Your task to perform on an android device: How much does a 2 bedroom apartment rent for in Denver? Image 0: 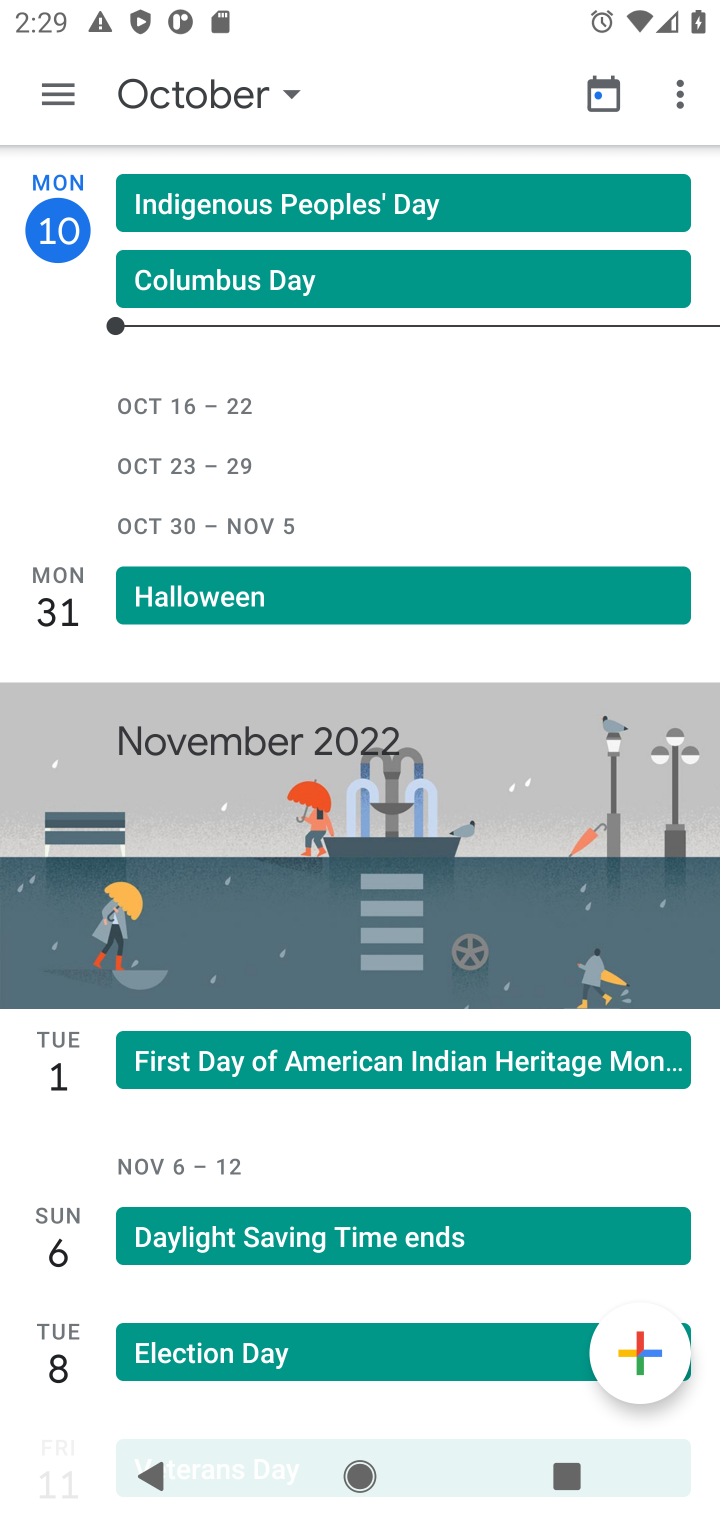
Step 0: press home button
Your task to perform on an android device: How much does a 2 bedroom apartment rent for in Denver? Image 1: 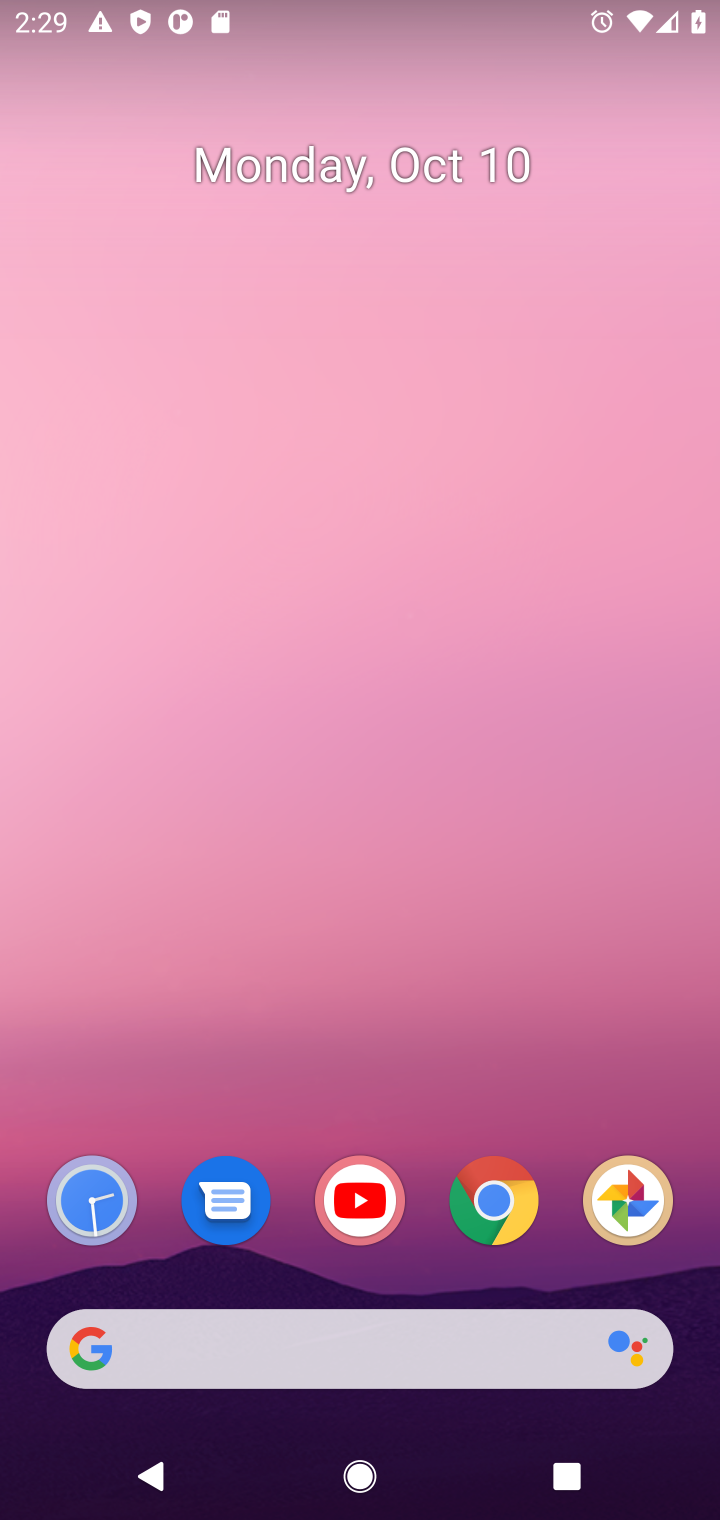
Step 1: click (485, 1202)
Your task to perform on an android device: How much does a 2 bedroom apartment rent for in Denver? Image 2: 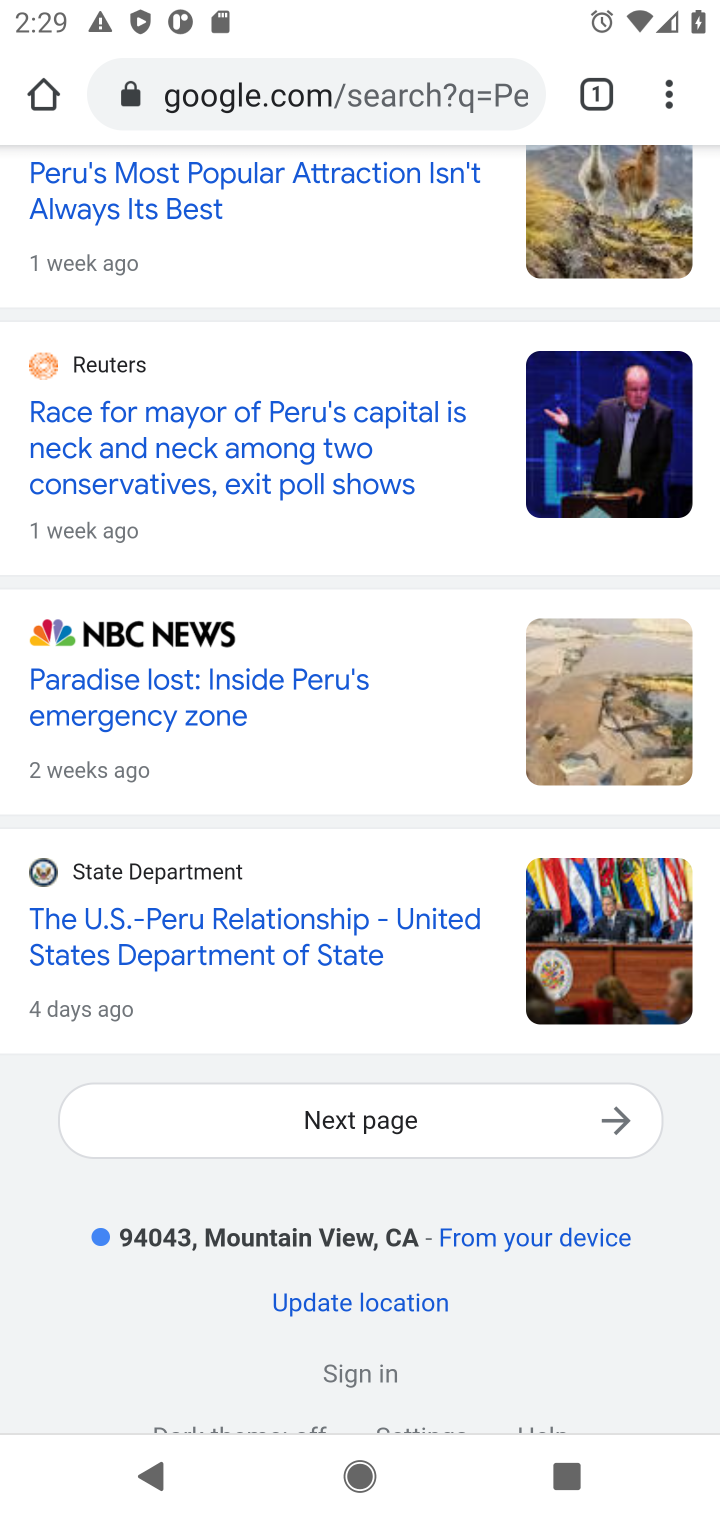
Step 2: click (332, 88)
Your task to perform on an android device: How much does a 2 bedroom apartment rent for in Denver? Image 3: 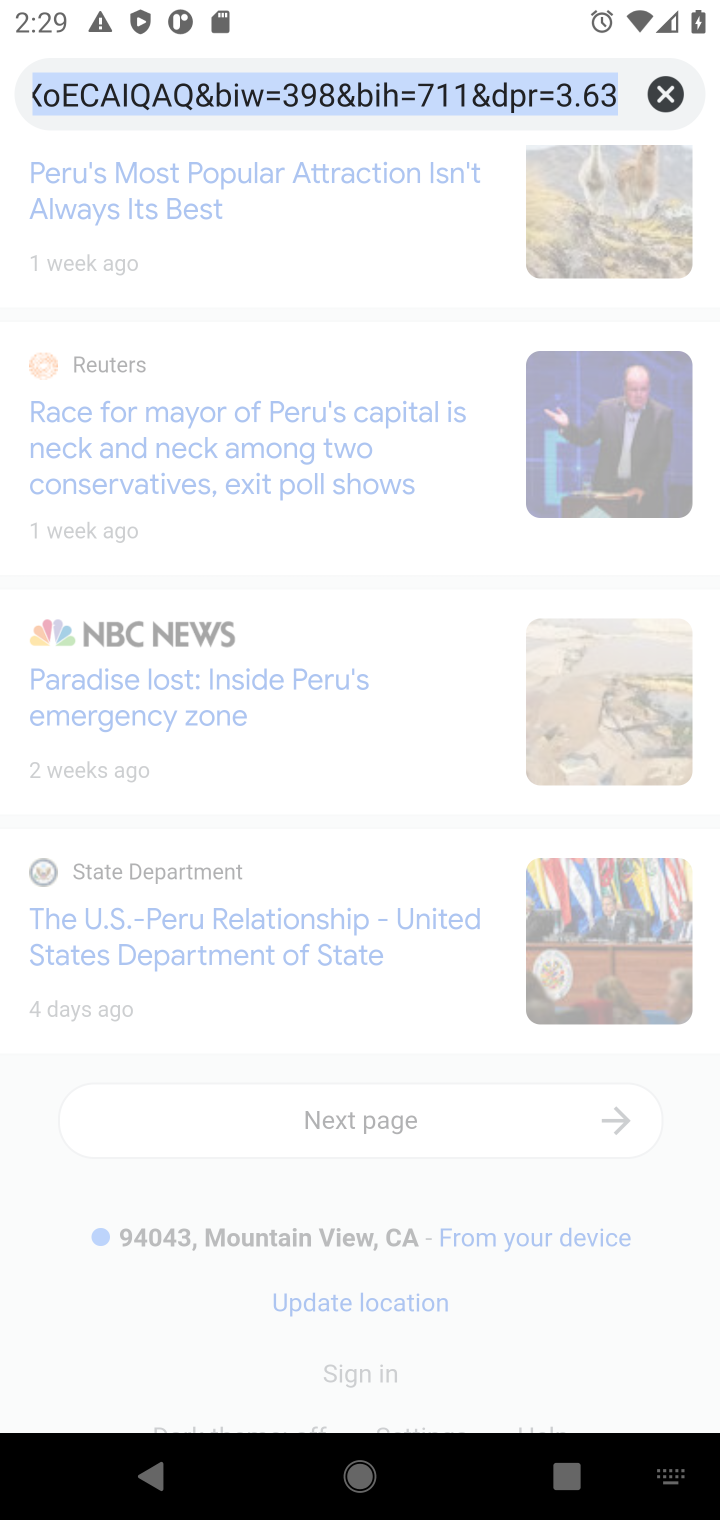
Step 3: type "2 bedroom apartment rent for in Denver"
Your task to perform on an android device: How much does a 2 bedroom apartment rent for in Denver? Image 4: 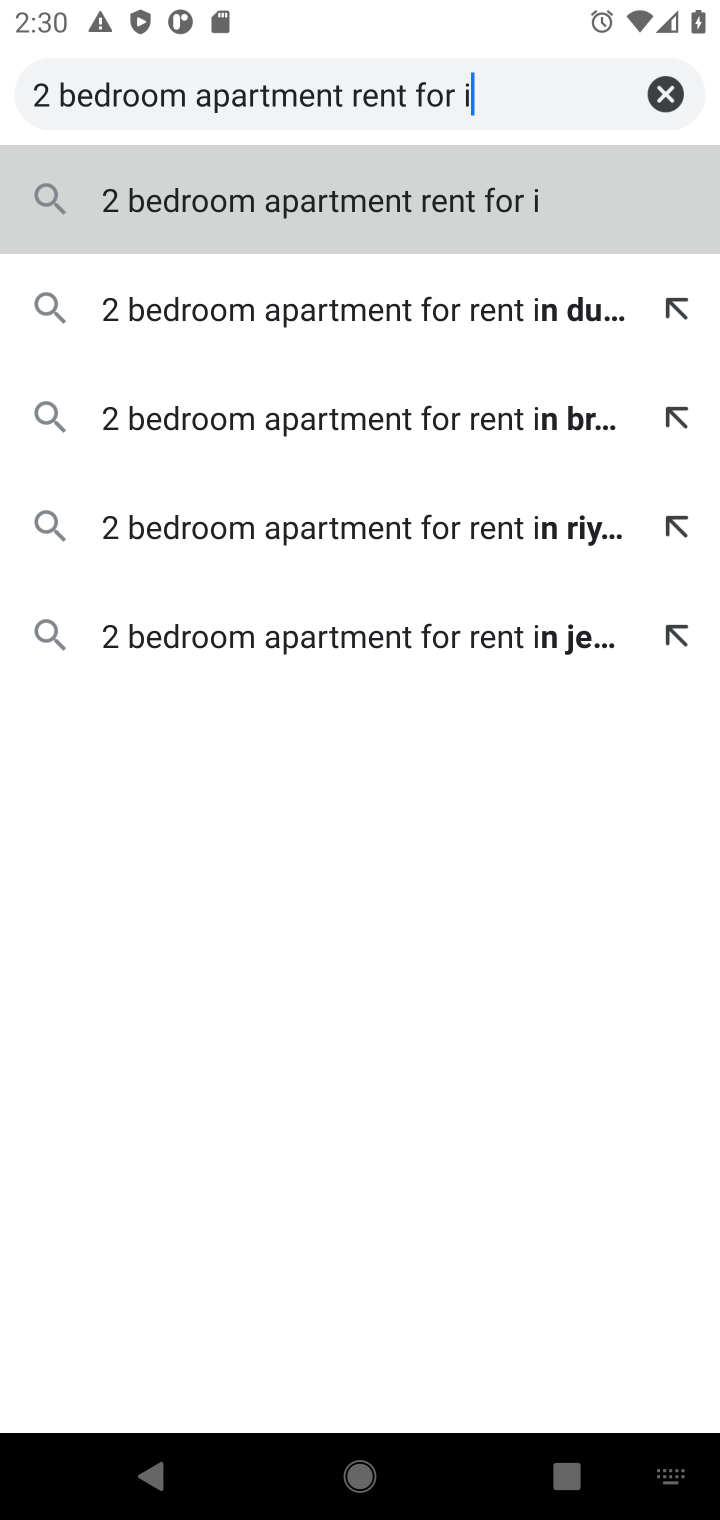
Step 4: type "n denver"
Your task to perform on an android device: How much does a 2 bedroom apartment rent for in Denver? Image 5: 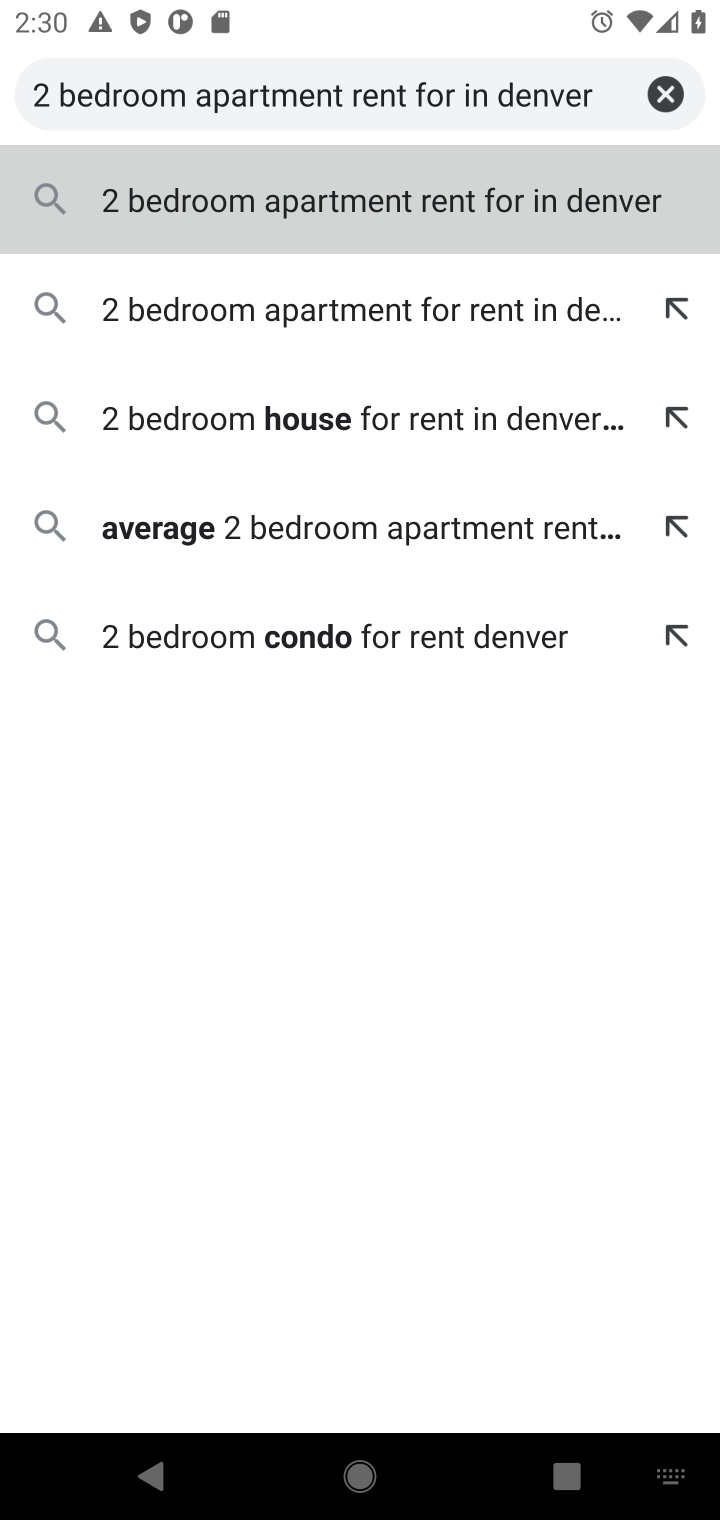
Step 5: click (573, 186)
Your task to perform on an android device: How much does a 2 bedroom apartment rent for in Denver? Image 6: 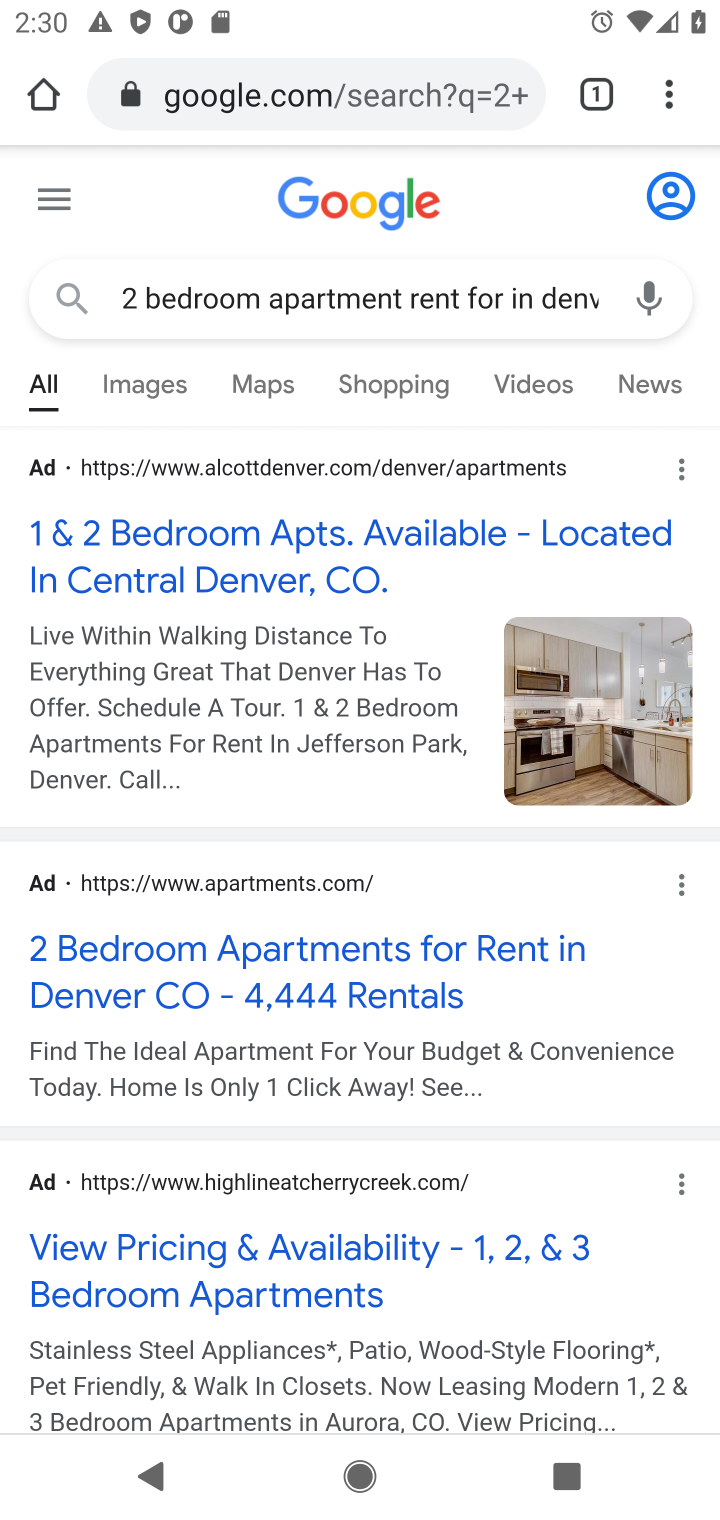
Step 6: drag from (318, 825) to (285, 458)
Your task to perform on an android device: How much does a 2 bedroom apartment rent for in Denver? Image 7: 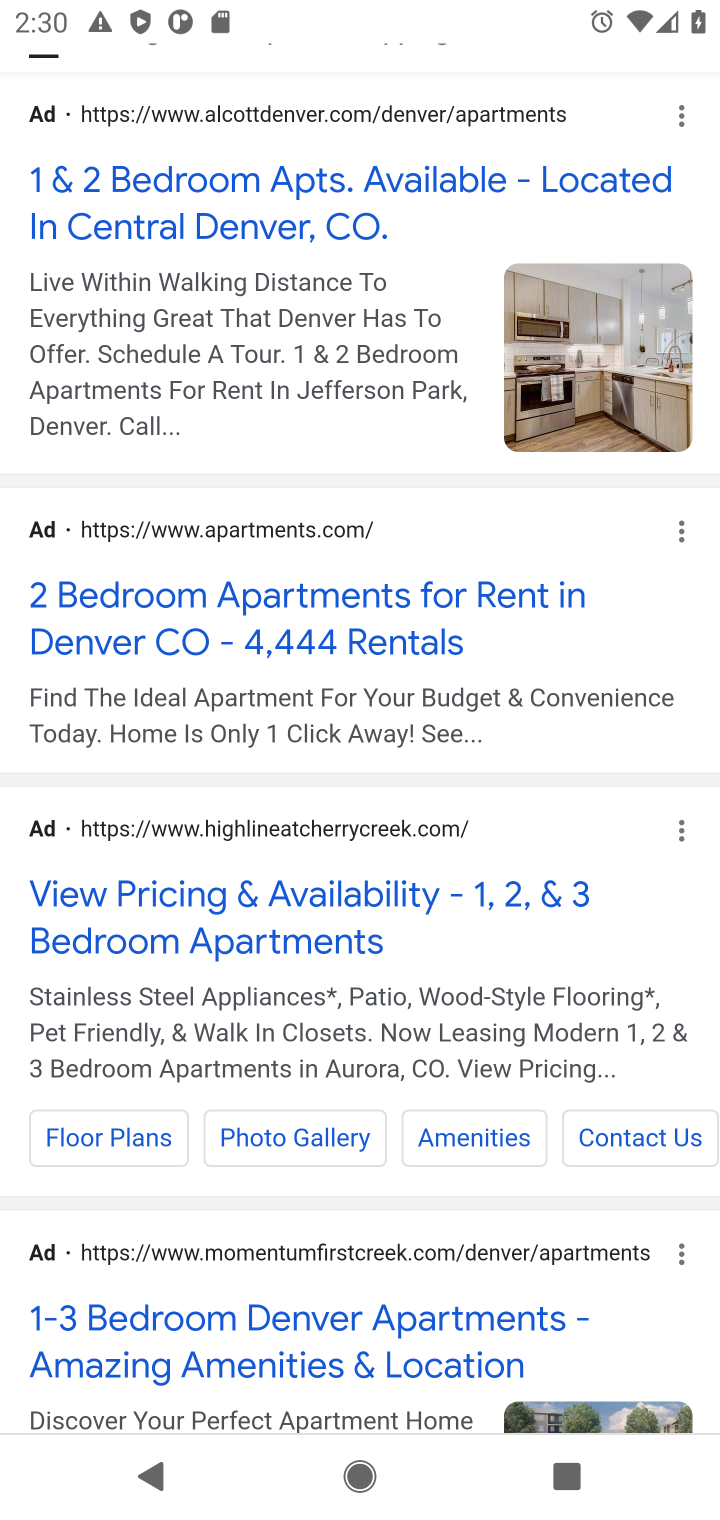
Step 7: drag from (277, 777) to (209, 654)
Your task to perform on an android device: How much does a 2 bedroom apartment rent for in Denver? Image 8: 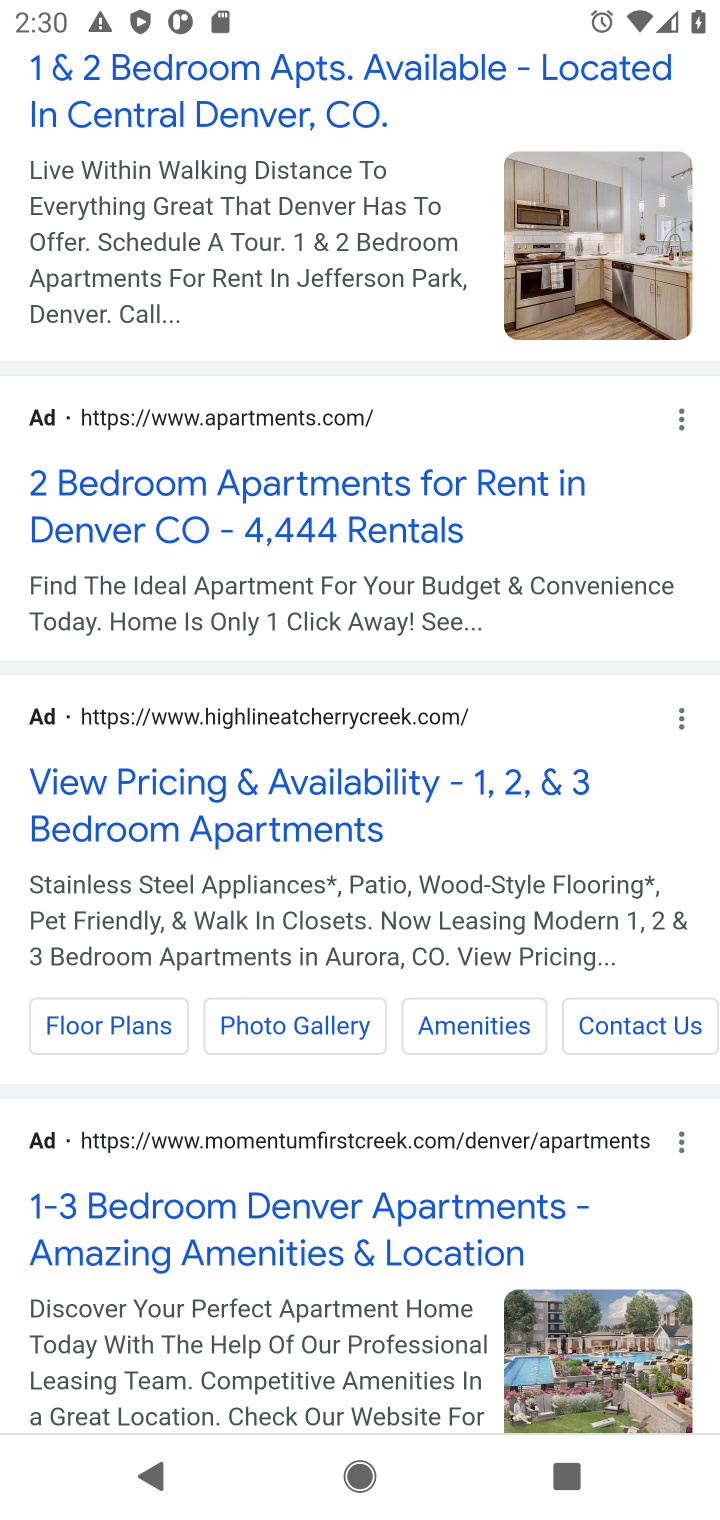
Step 8: click (330, 524)
Your task to perform on an android device: How much does a 2 bedroom apartment rent for in Denver? Image 9: 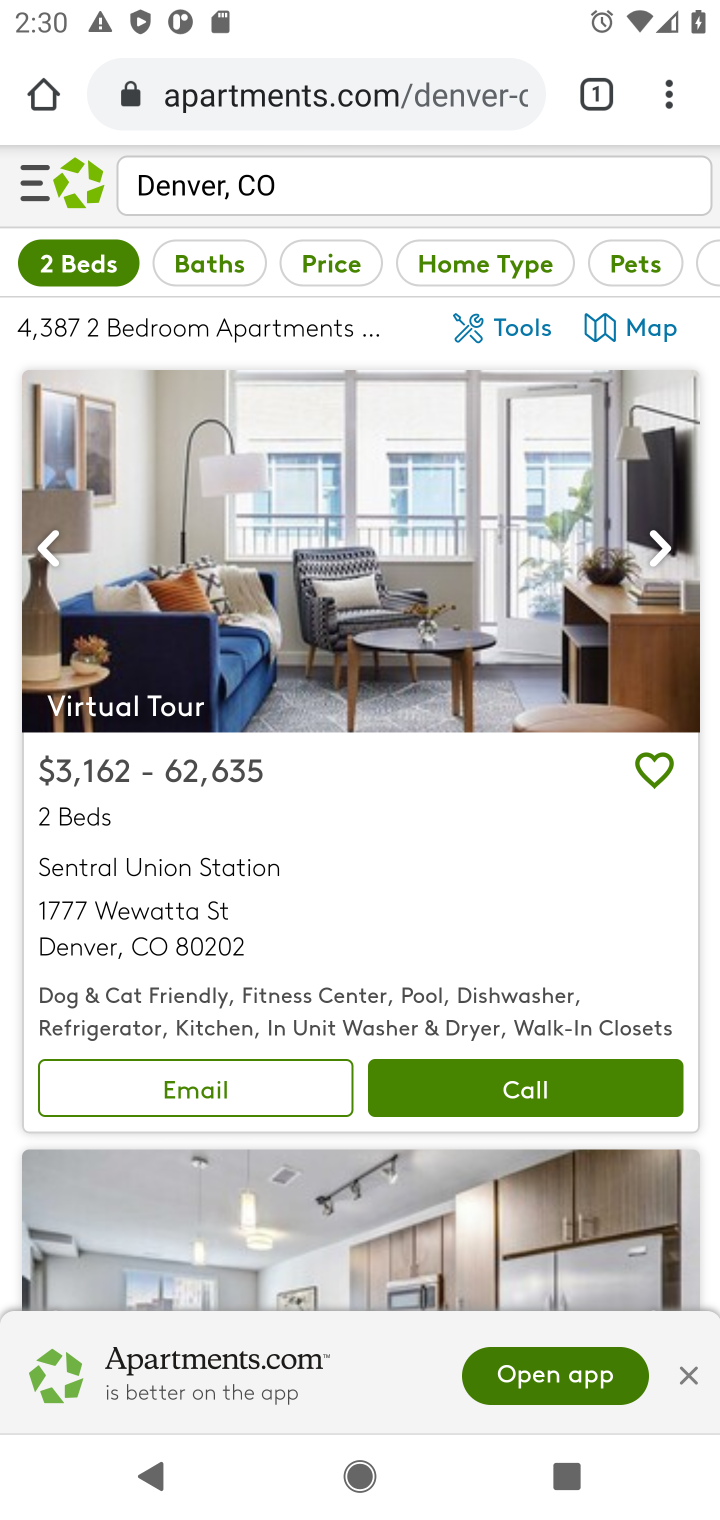
Step 9: task complete